Your task to perform on an android device: Go to notification settings Image 0: 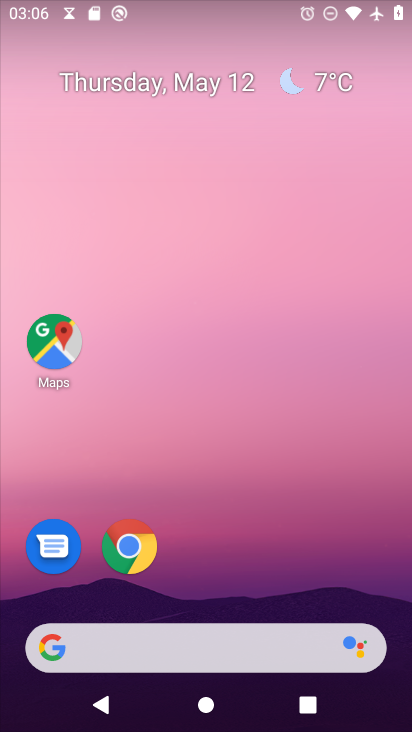
Step 0: drag from (218, 635) to (296, 134)
Your task to perform on an android device: Go to notification settings Image 1: 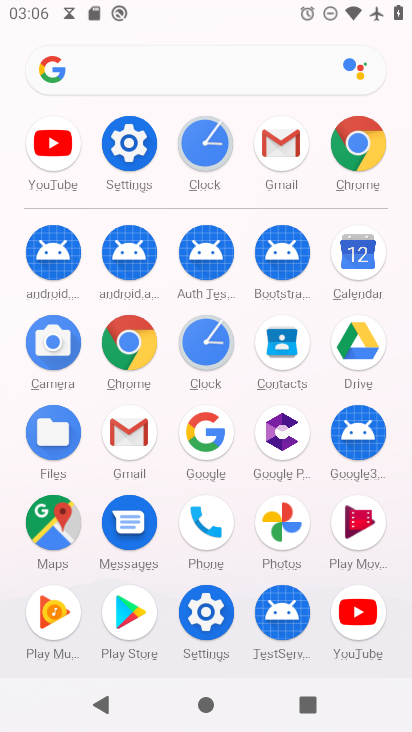
Step 1: click (133, 163)
Your task to perform on an android device: Go to notification settings Image 2: 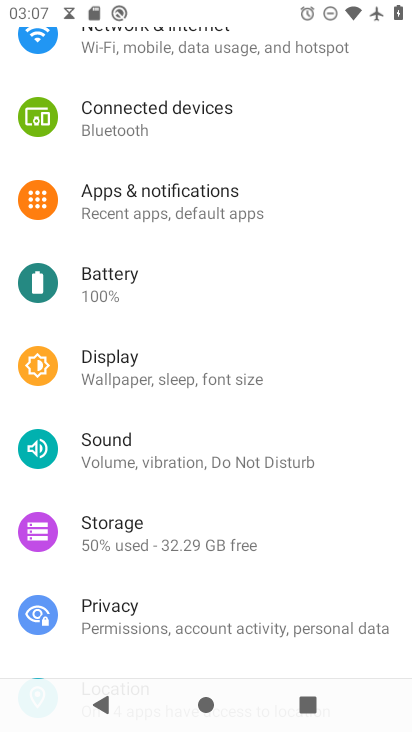
Step 2: click (208, 207)
Your task to perform on an android device: Go to notification settings Image 3: 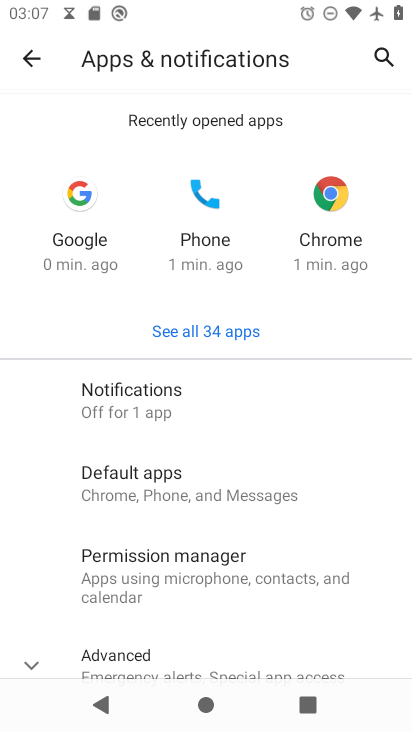
Step 3: click (153, 401)
Your task to perform on an android device: Go to notification settings Image 4: 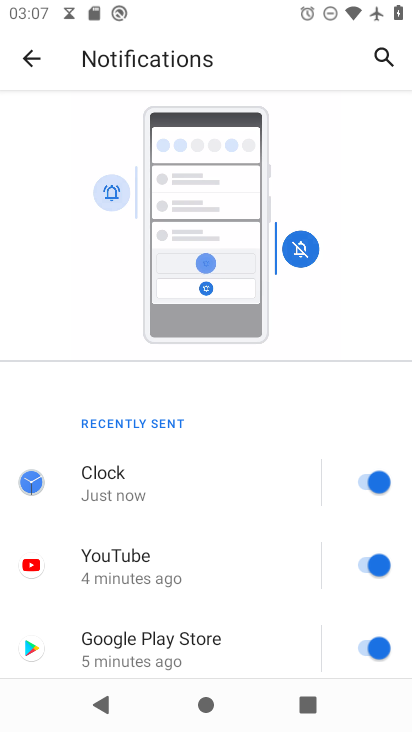
Step 4: task complete